Your task to perform on an android device: Open the calendar app, open the side menu, and click the "Day" option Image 0: 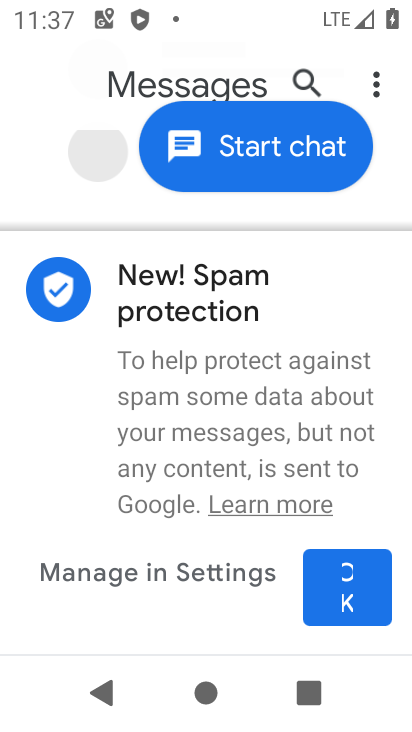
Step 0: click (245, 273)
Your task to perform on an android device: Open the calendar app, open the side menu, and click the "Day" option Image 1: 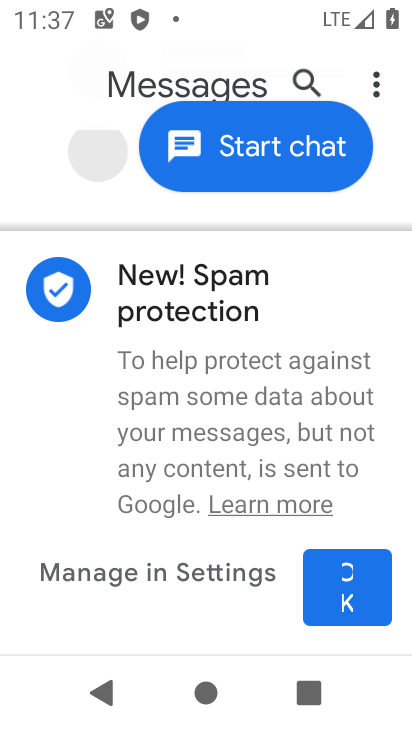
Step 1: press home button
Your task to perform on an android device: Open the calendar app, open the side menu, and click the "Day" option Image 2: 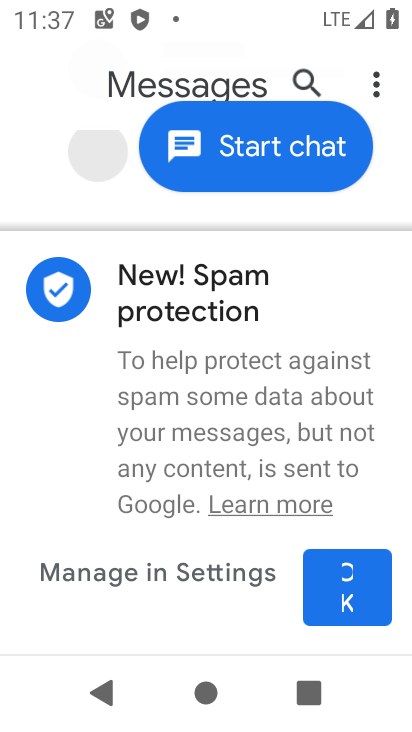
Step 2: drag from (235, 499) to (279, 368)
Your task to perform on an android device: Open the calendar app, open the side menu, and click the "Day" option Image 3: 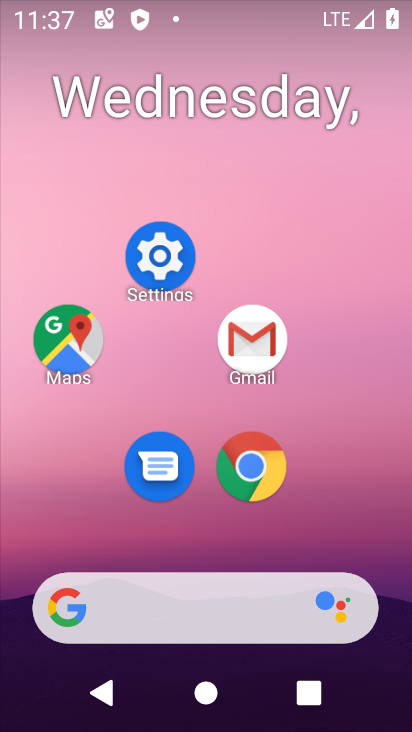
Step 3: drag from (209, 493) to (268, 108)
Your task to perform on an android device: Open the calendar app, open the side menu, and click the "Day" option Image 4: 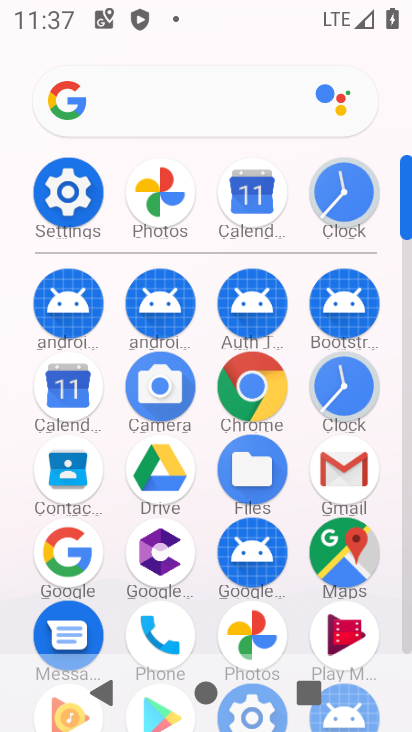
Step 4: click (50, 386)
Your task to perform on an android device: Open the calendar app, open the side menu, and click the "Day" option Image 5: 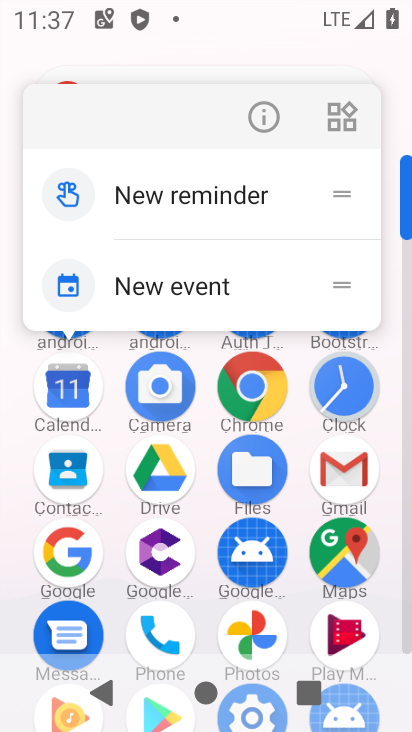
Step 5: click (249, 116)
Your task to perform on an android device: Open the calendar app, open the side menu, and click the "Day" option Image 6: 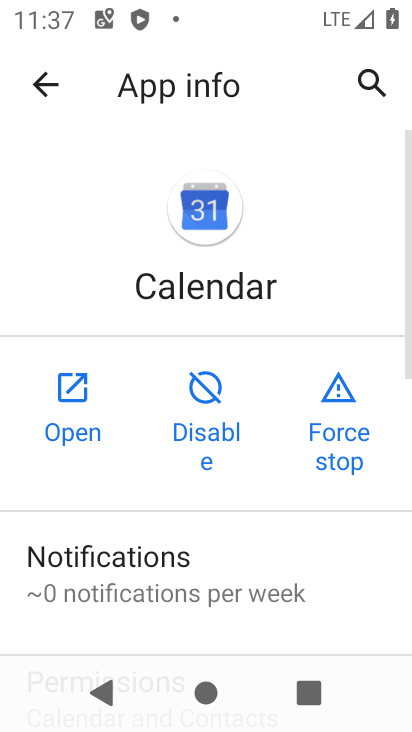
Step 6: click (59, 421)
Your task to perform on an android device: Open the calendar app, open the side menu, and click the "Day" option Image 7: 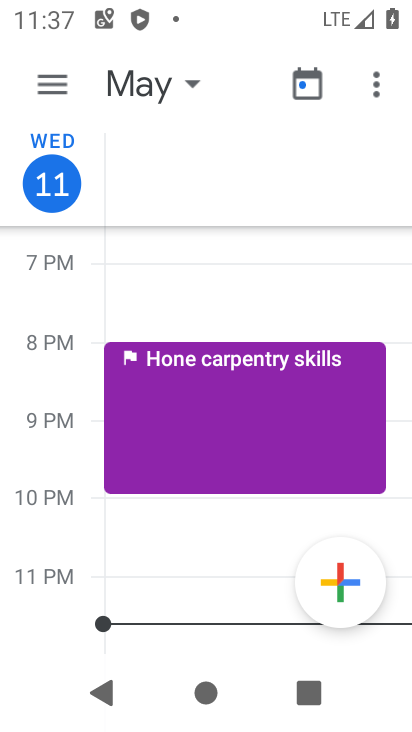
Step 7: click (54, 90)
Your task to perform on an android device: Open the calendar app, open the side menu, and click the "Day" option Image 8: 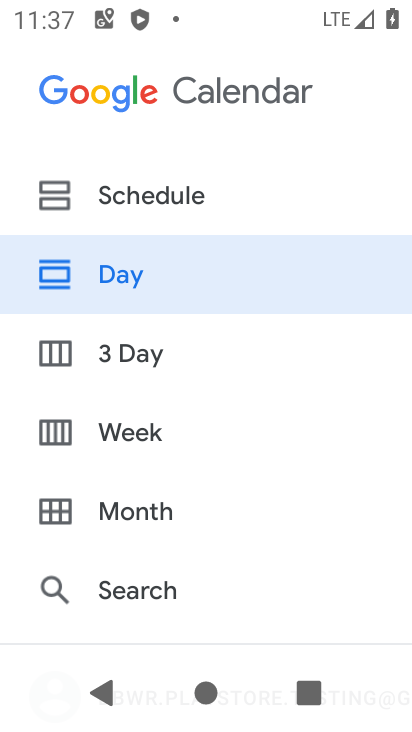
Step 8: click (128, 279)
Your task to perform on an android device: Open the calendar app, open the side menu, and click the "Day" option Image 9: 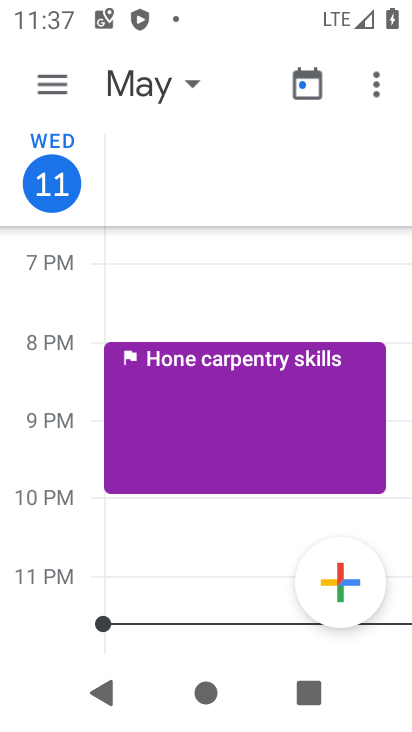
Step 9: task complete